Your task to perform on an android device: toggle airplane mode Image 0: 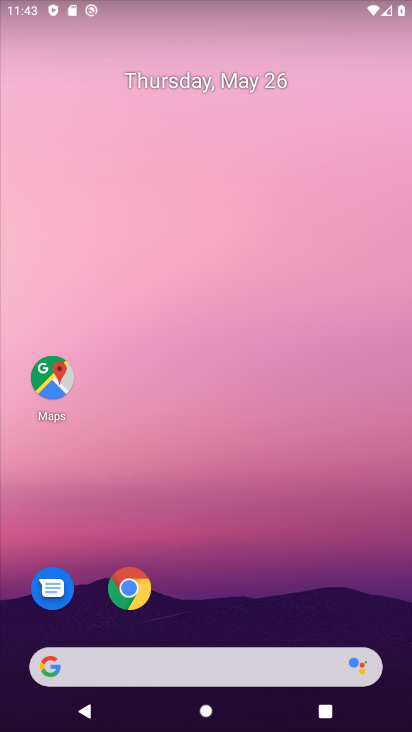
Step 0: drag from (330, 8) to (319, 191)
Your task to perform on an android device: toggle airplane mode Image 1: 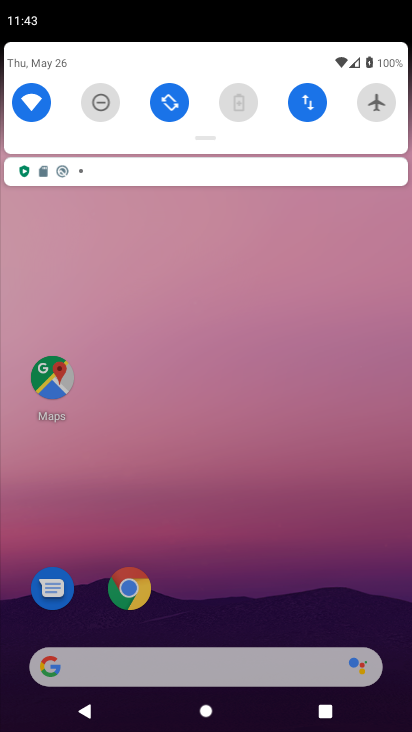
Step 1: click (319, 192)
Your task to perform on an android device: toggle airplane mode Image 2: 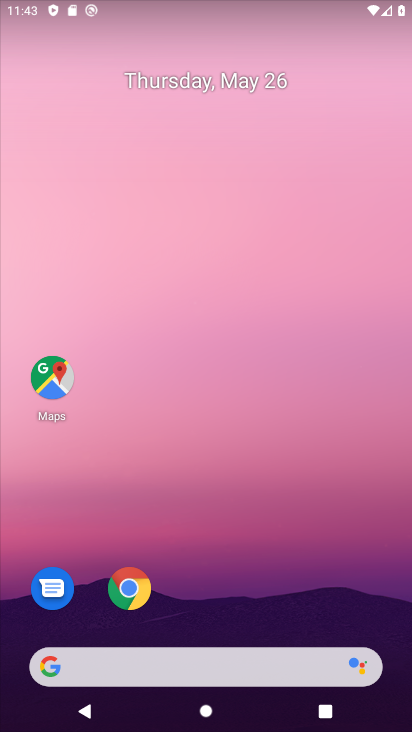
Step 2: drag from (351, 1) to (283, 579)
Your task to perform on an android device: toggle airplane mode Image 3: 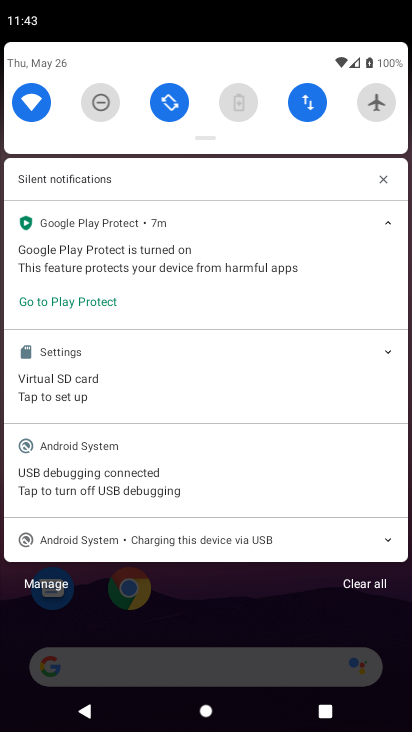
Step 3: click (374, 98)
Your task to perform on an android device: toggle airplane mode Image 4: 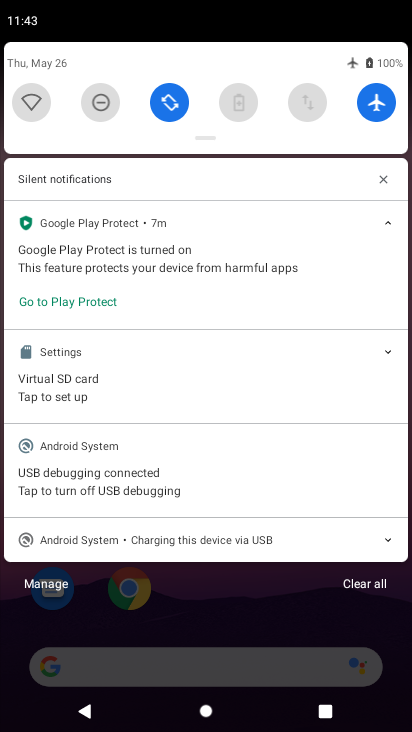
Step 4: task complete